Your task to perform on an android device: Is it going to rain this weekend? Image 0: 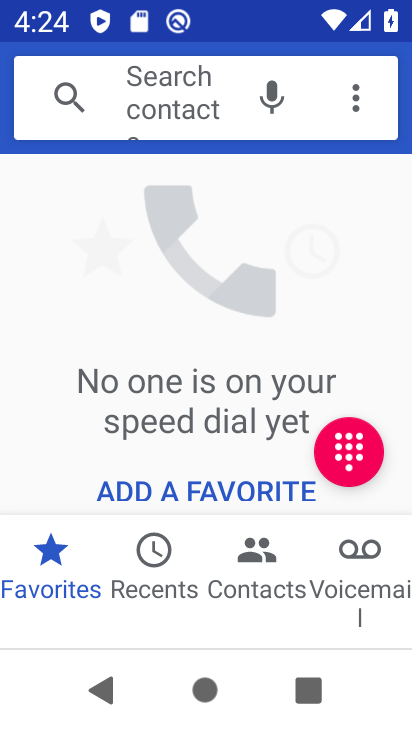
Step 0: press home button
Your task to perform on an android device: Is it going to rain this weekend? Image 1: 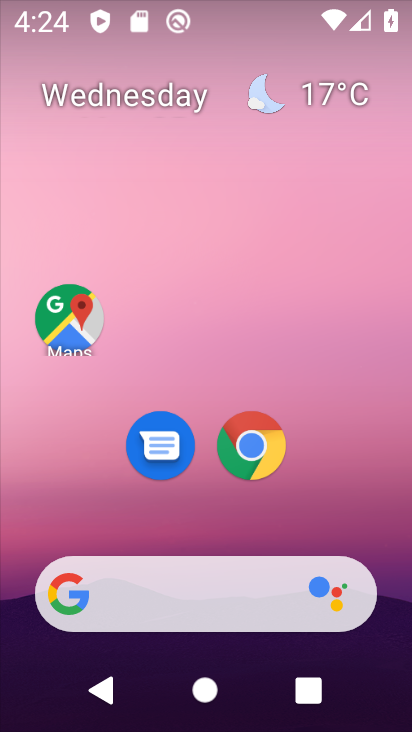
Step 1: click (213, 606)
Your task to perform on an android device: Is it going to rain this weekend? Image 2: 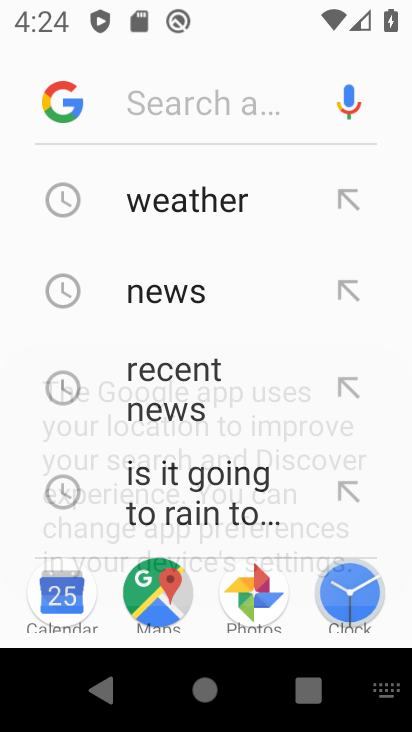
Step 2: type "Is it going to rain this weekend?"
Your task to perform on an android device: Is it going to rain this weekend? Image 3: 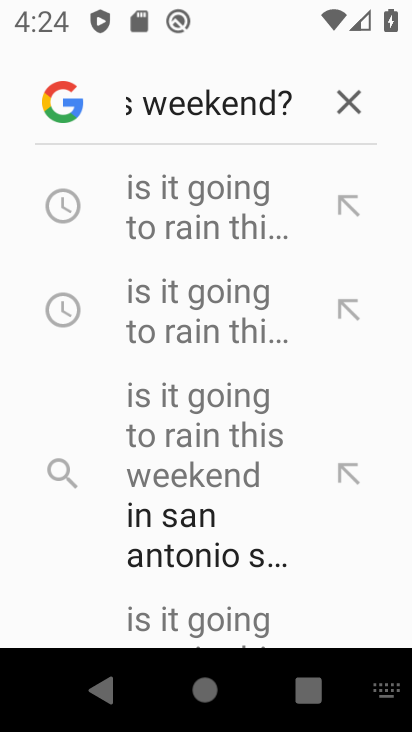
Step 3: click (188, 229)
Your task to perform on an android device: Is it going to rain this weekend? Image 4: 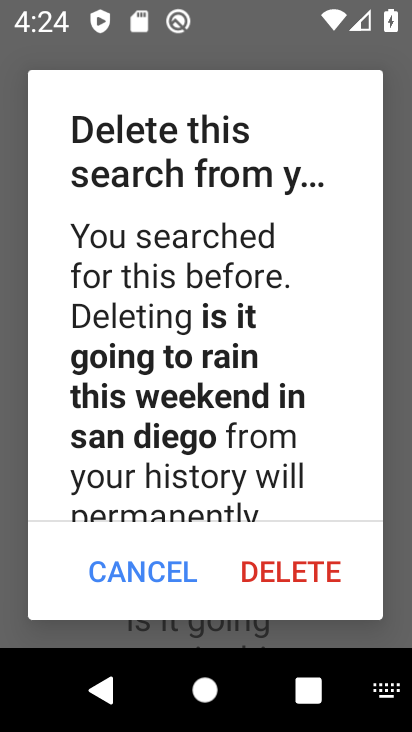
Step 4: click (161, 570)
Your task to perform on an android device: Is it going to rain this weekend? Image 5: 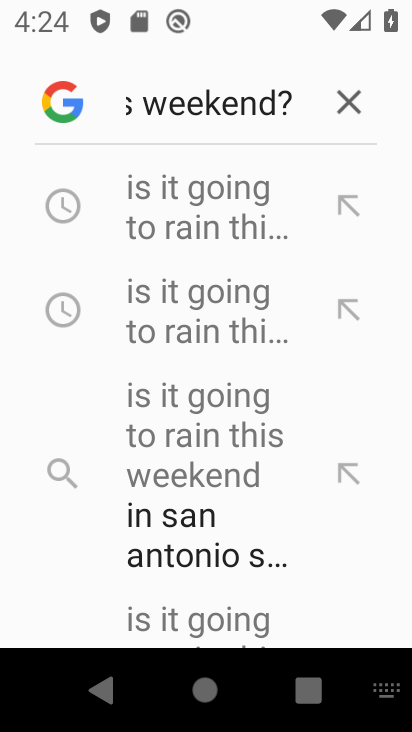
Step 5: click (176, 215)
Your task to perform on an android device: Is it going to rain this weekend? Image 6: 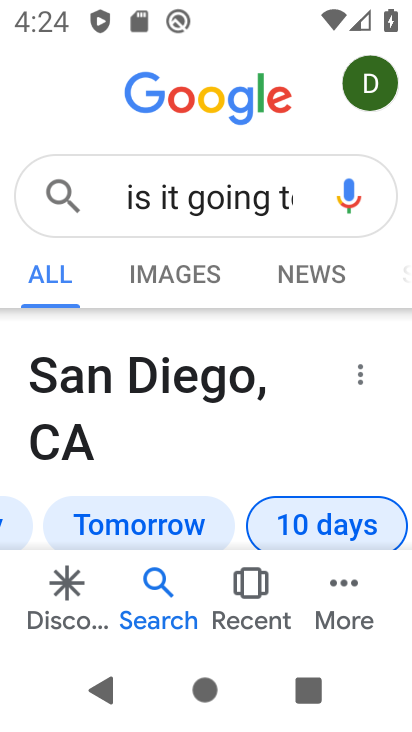
Step 6: task complete